Your task to perform on an android device: Go to internet settings Image 0: 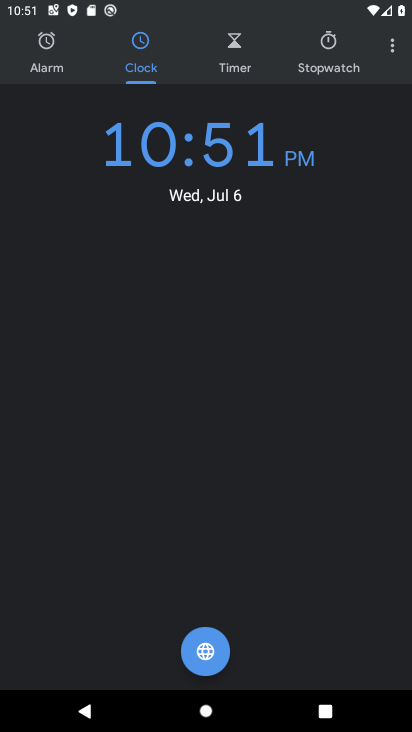
Step 0: press home button
Your task to perform on an android device: Go to internet settings Image 1: 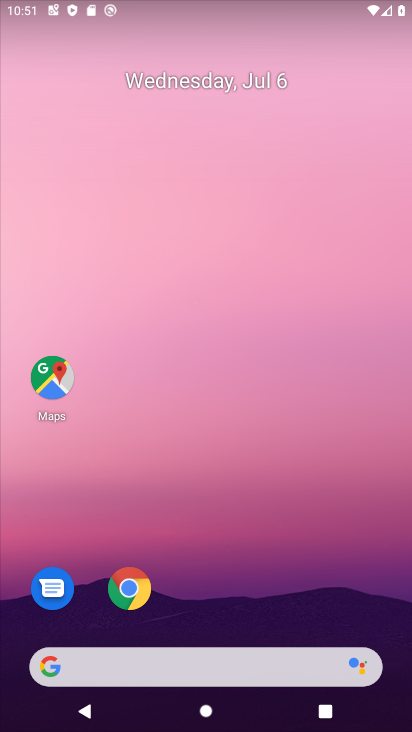
Step 1: drag from (339, 1) to (303, 569)
Your task to perform on an android device: Go to internet settings Image 2: 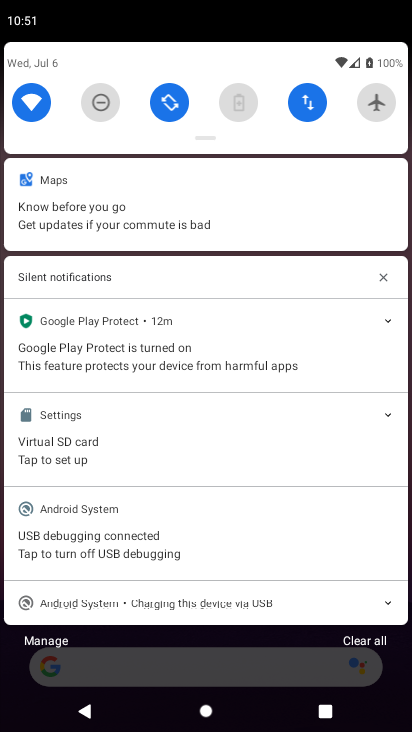
Step 2: click (304, 92)
Your task to perform on an android device: Go to internet settings Image 3: 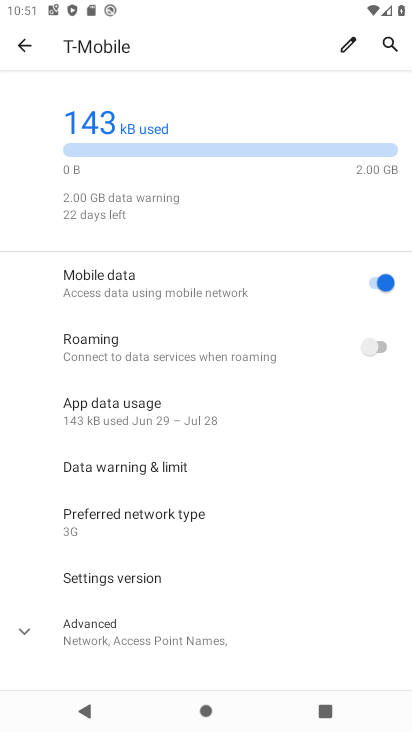
Step 3: task complete